Your task to perform on an android device: Open the web browser Image 0: 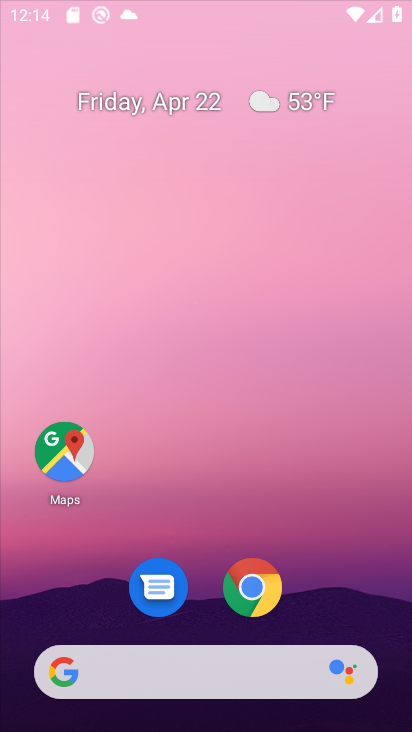
Step 0: click (257, 598)
Your task to perform on an android device: Open the web browser Image 1: 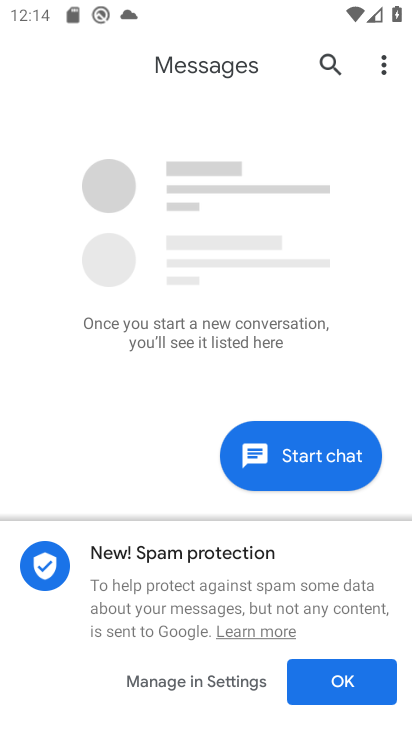
Step 1: press home button
Your task to perform on an android device: Open the web browser Image 2: 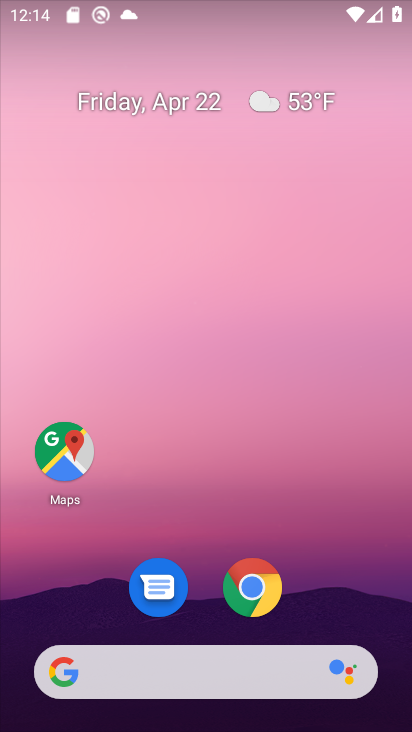
Step 2: click (257, 584)
Your task to perform on an android device: Open the web browser Image 3: 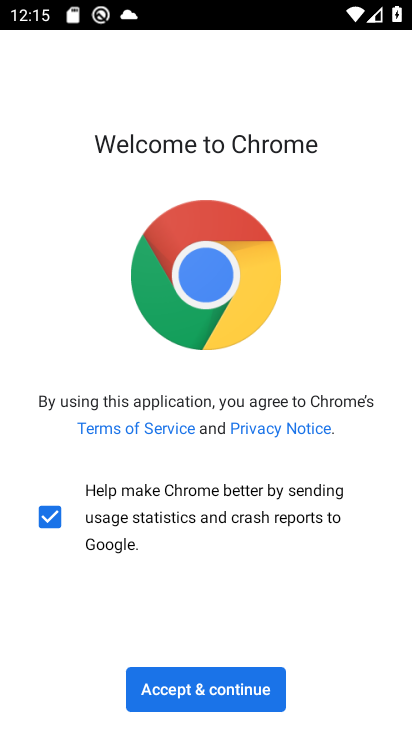
Step 3: click (243, 689)
Your task to perform on an android device: Open the web browser Image 4: 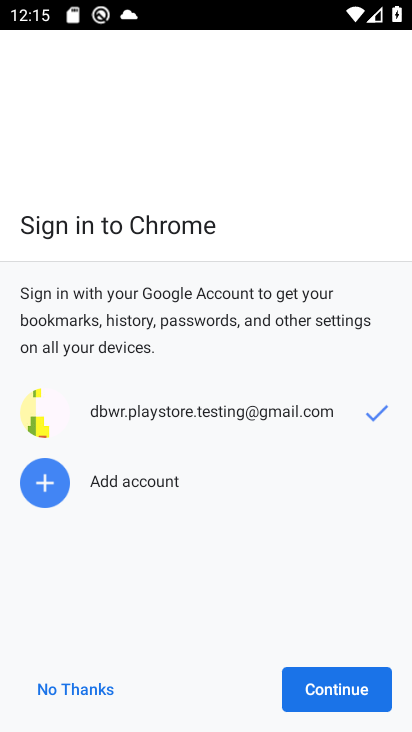
Step 4: click (343, 688)
Your task to perform on an android device: Open the web browser Image 5: 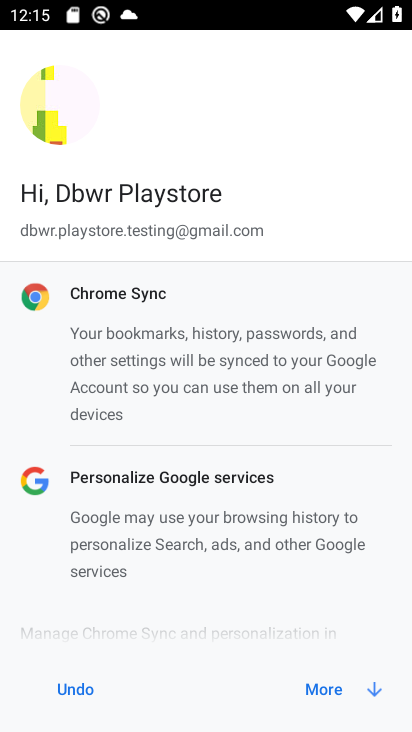
Step 5: click (324, 690)
Your task to perform on an android device: Open the web browser Image 6: 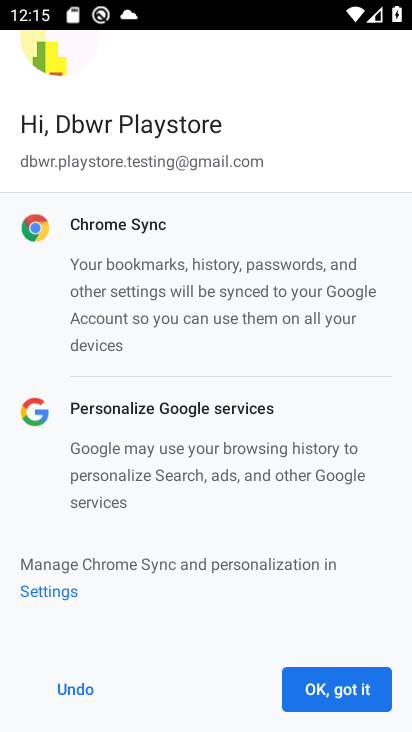
Step 6: click (324, 690)
Your task to perform on an android device: Open the web browser Image 7: 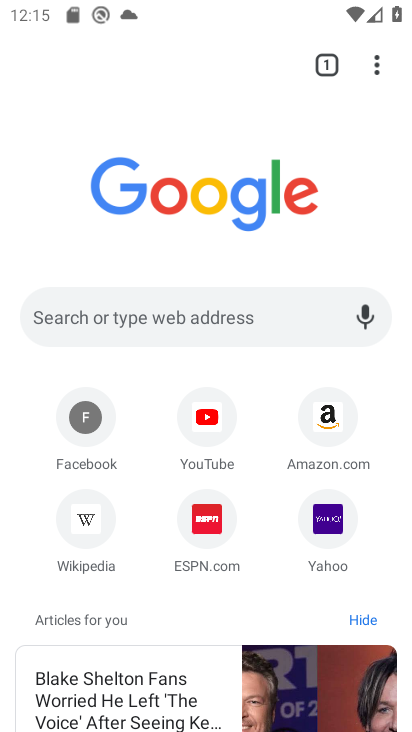
Step 7: task complete